Your task to perform on an android device: star an email in the gmail app Image 0: 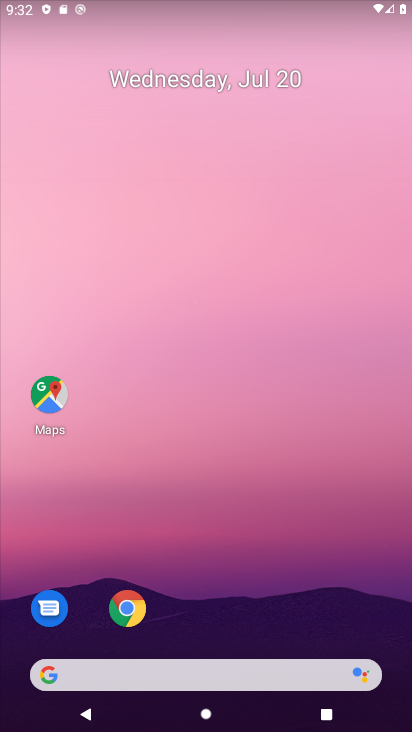
Step 0: drag from (262, 636) to (255, 154)
Your task to perform on an android device: star an email in the gmail app Image 1: 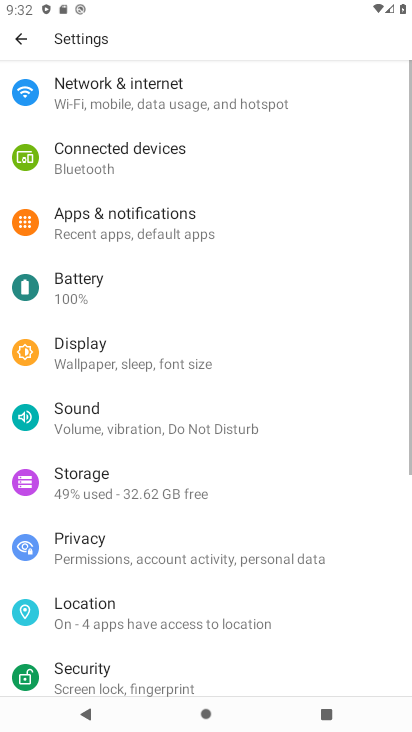
Step 1: press back button
Your task to perform on an android device: star an email in the gmail app Image 2: 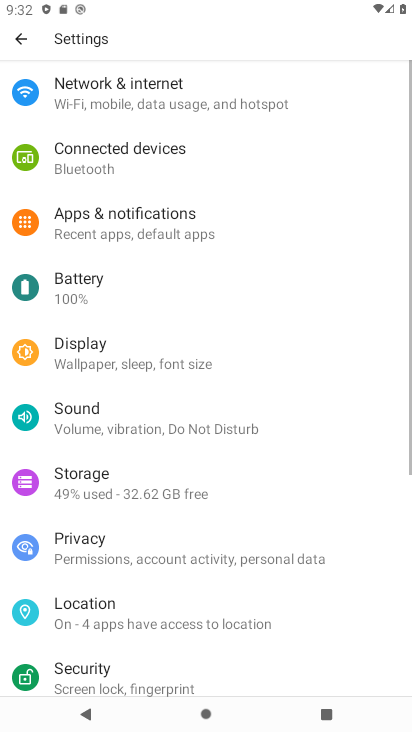
Step 2: press back button
Your task to perform on an android device: star an email in the gmail app Image 3: 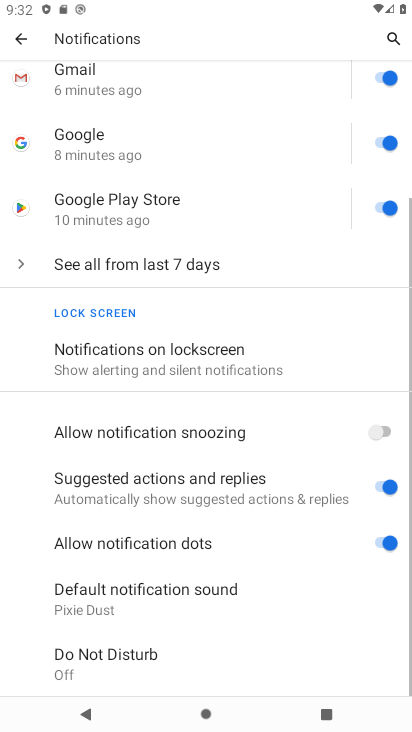
Step 3: press back button
Your task to perform on an android device: star an email in the gmail app Image 4: 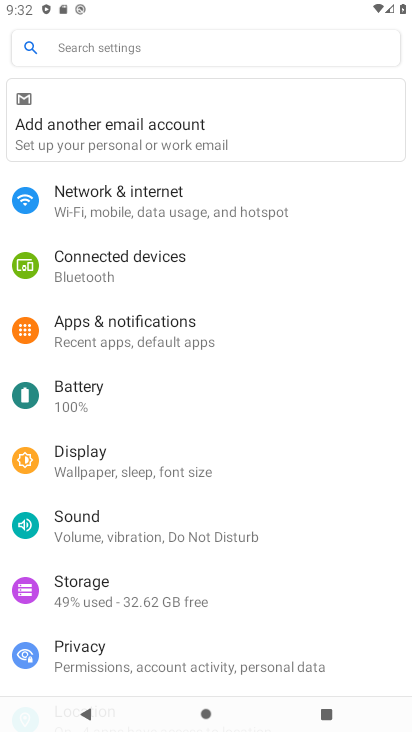
Step 4: press home button
Your task to perform on an android device: star an email in the gmail app Image 5: 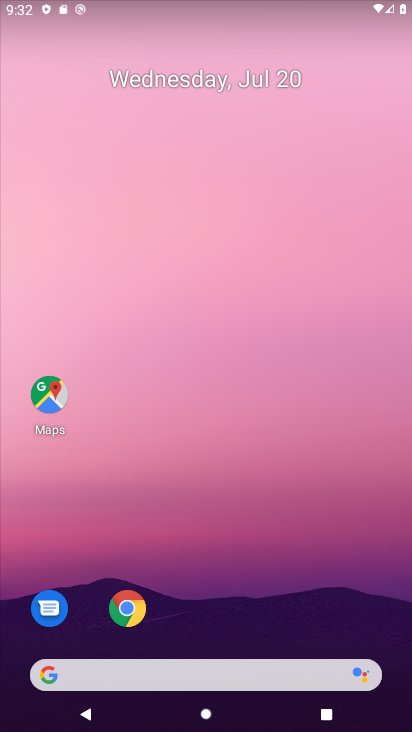
Step 5: drag from (259, 527) to (270, 103)
Your task to perform on an android device: star an email in the gmail app Image 6: 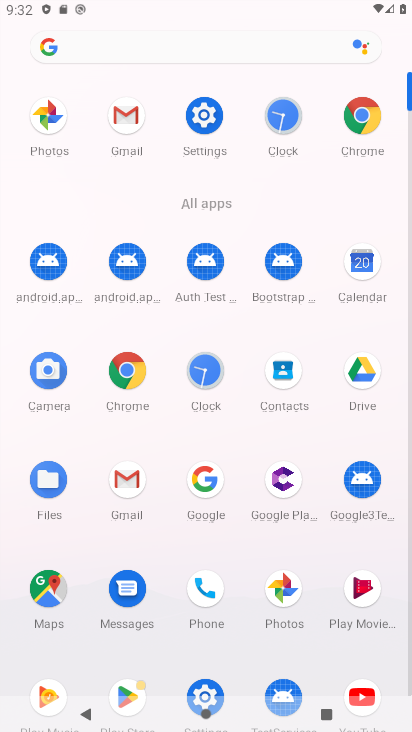
Step 6: click (120, 129)
Your task to perform on an android device: star an email in the gmail app Image 7: 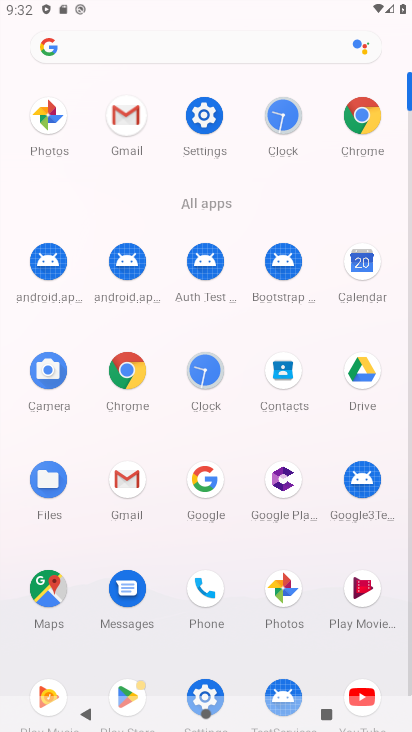
Step 7: click (120, 129)
Your task to perform on an android device: star an email in the gmail app Image 8: 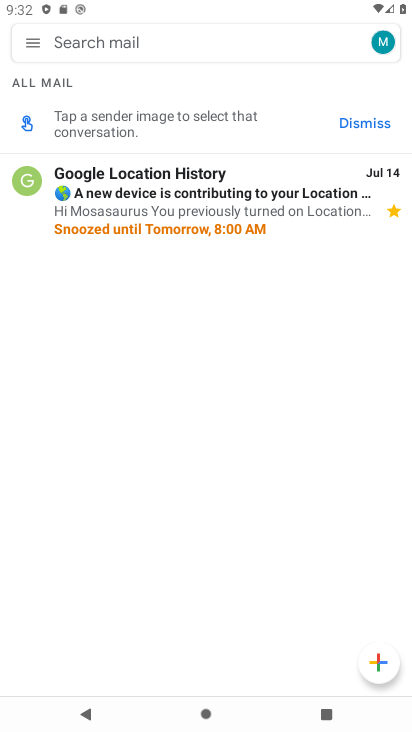
Step 8: task complete